Your task to perform on an android device: Search for asus rog on newegg, select the first entry, and add it to the cart. Image 0: 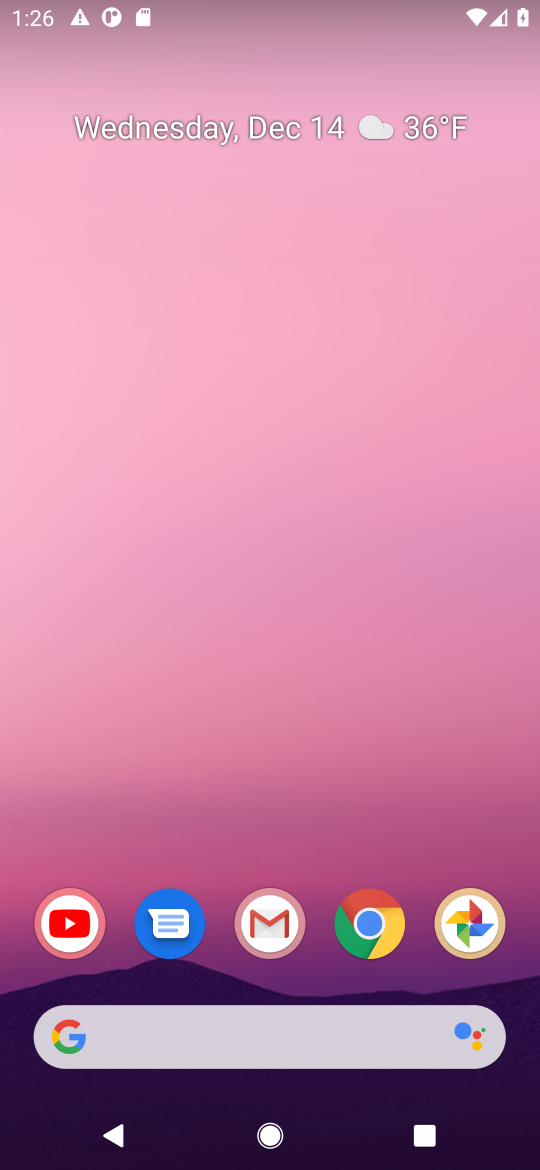
Step 0: click (369, 934)
Your task to perform on an android device: Search for asus rog on newegg, select the first entry, and add it to the cart. Image 1: 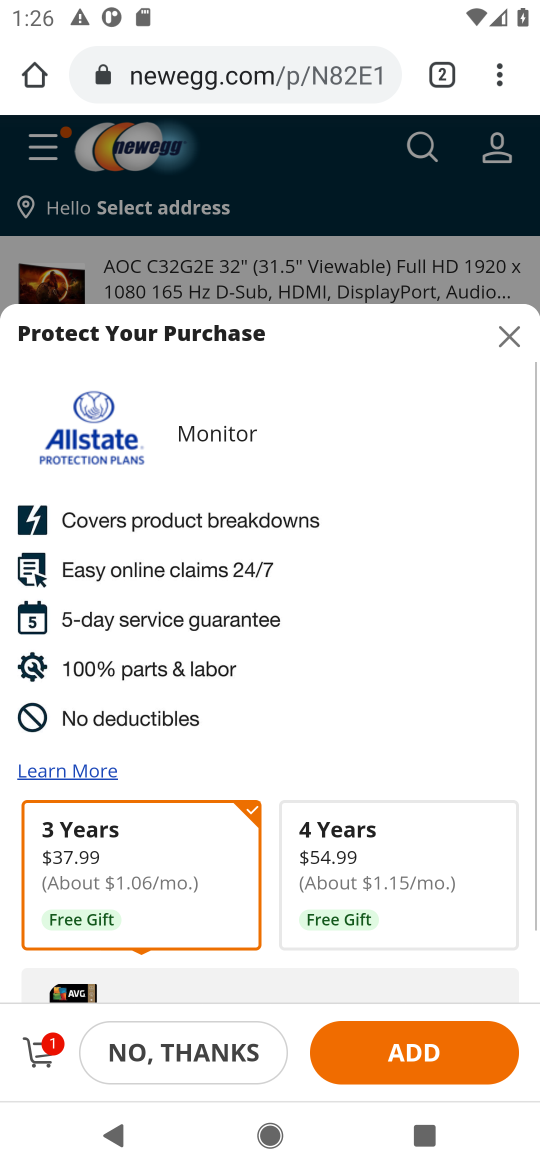
Step 1: click (513, 338)
Your task to perform on an android device: Search for asus rog on newegg, select the first entry, and add it to the cart. Image 2: 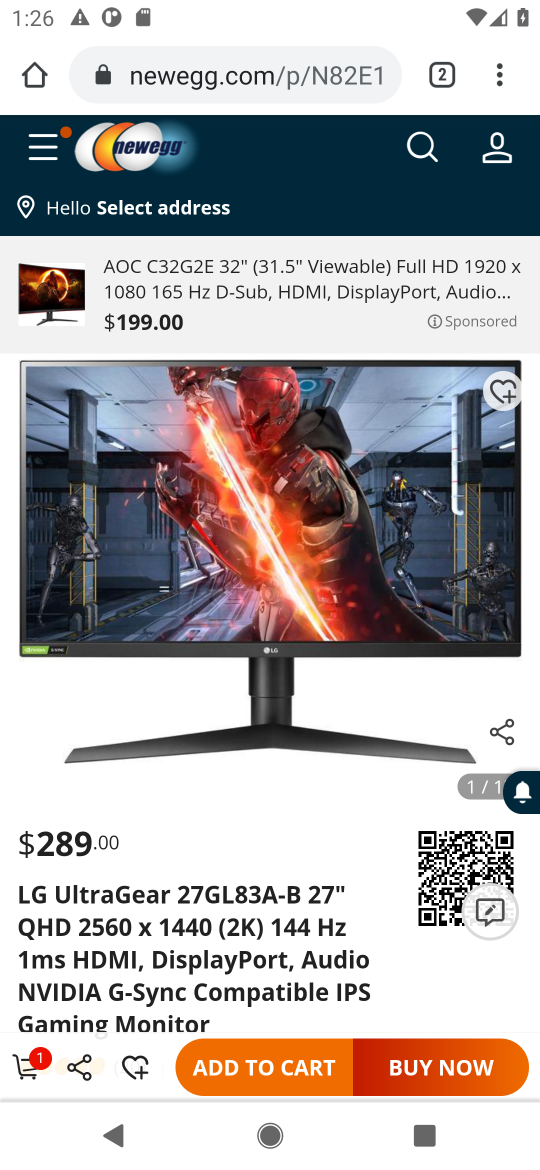
Step 2: click (426, 149)
Your task to perform on an android device: Search for asus rog on newegg, select the first entry, and add it to the cart. Image 3: 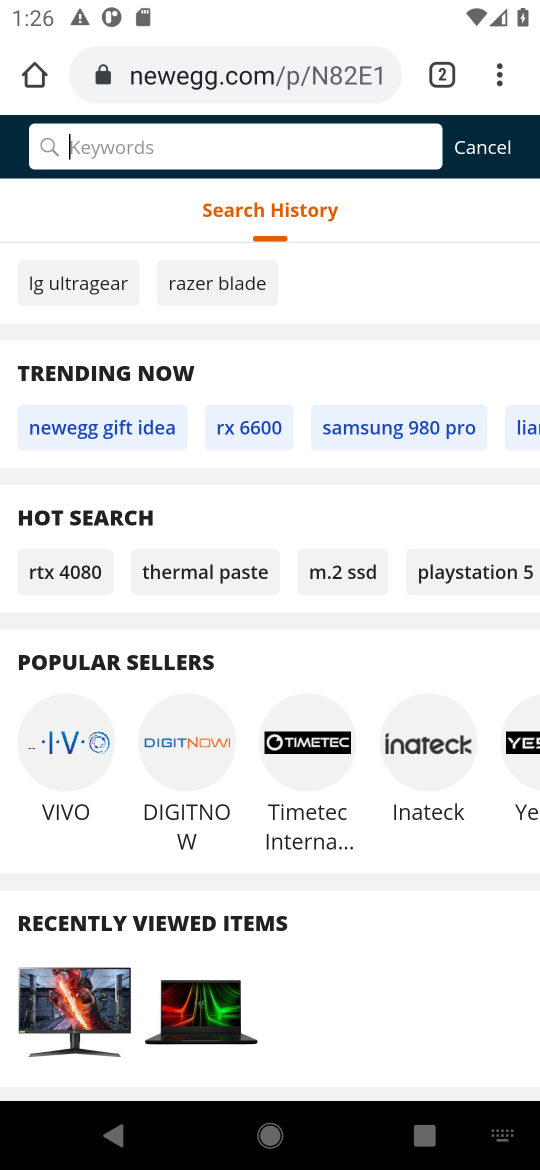
Step 3: type "asus rog"
Your task to perform on an android device: Search for asus rog on newegg, select the first entry, and add it to the cart. Image 4: 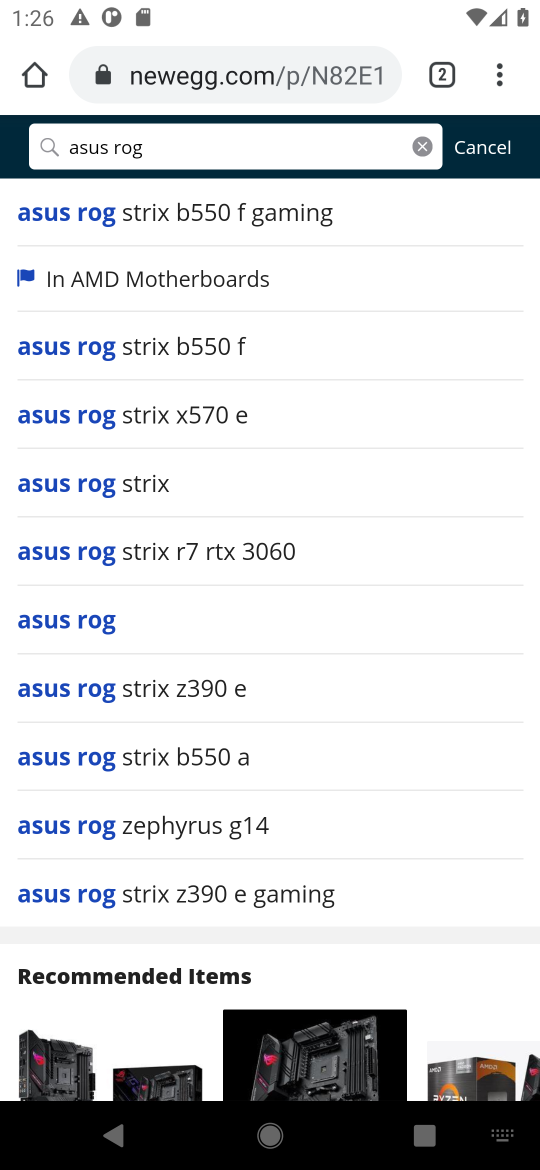
Step 4: click (100, 483)
Your task to perform on an android device: Search for asus rog on newegg, select the first entry, and add it to the cart. Image 5: 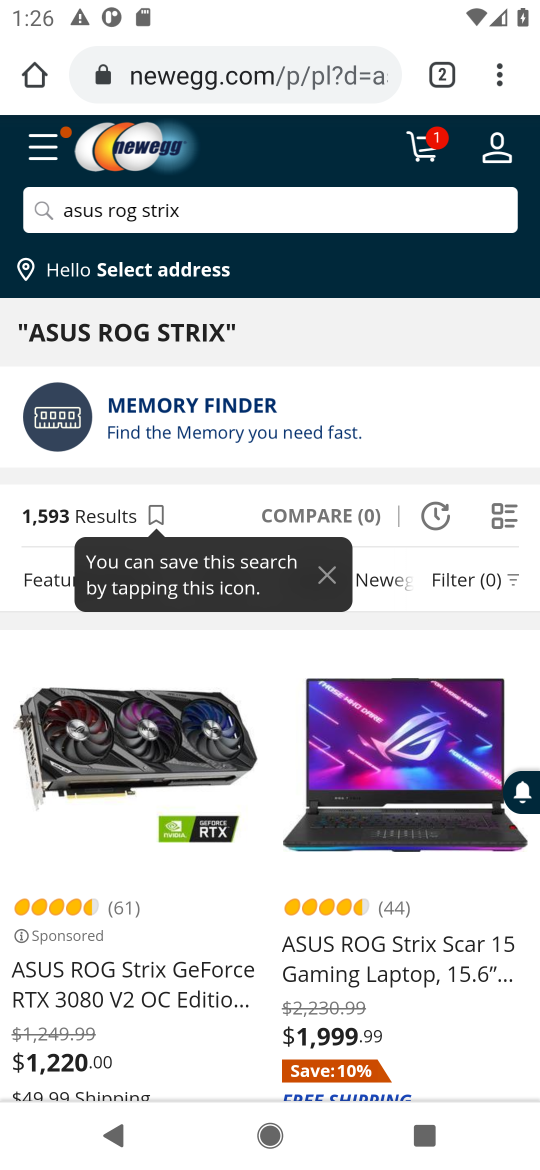
Step 5: click (376, 922)
Your task to perform on an android device: Search for asus rog on newegg, select the first entry, and add it to the cart. Image 6: 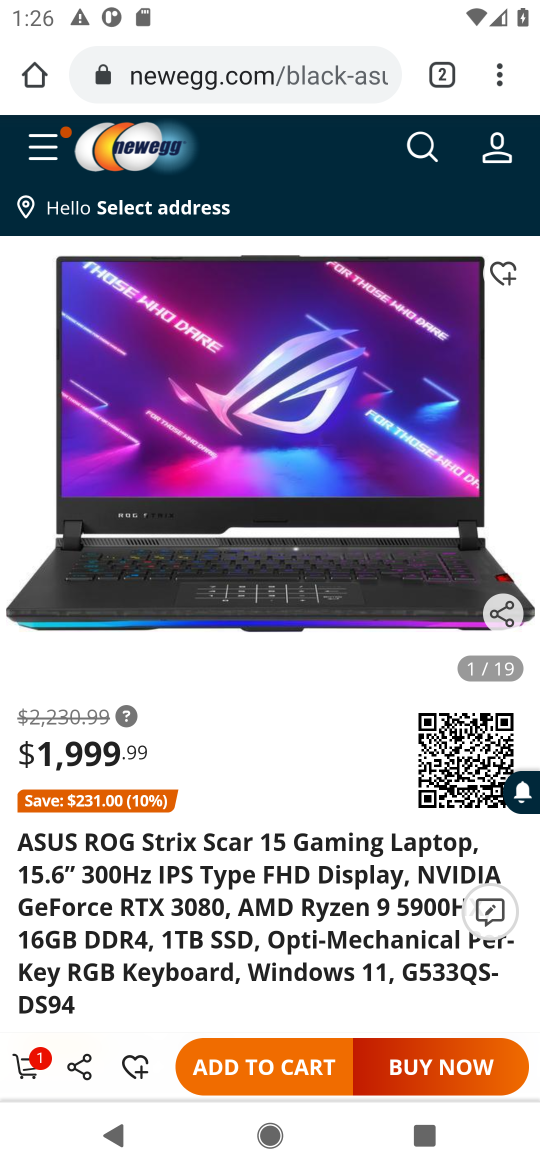
Step 6: click (299, 1074)
Your task to perform on an android device: Search for asus rog on newegg, select the first entry, and add it to the cart. Image 7: 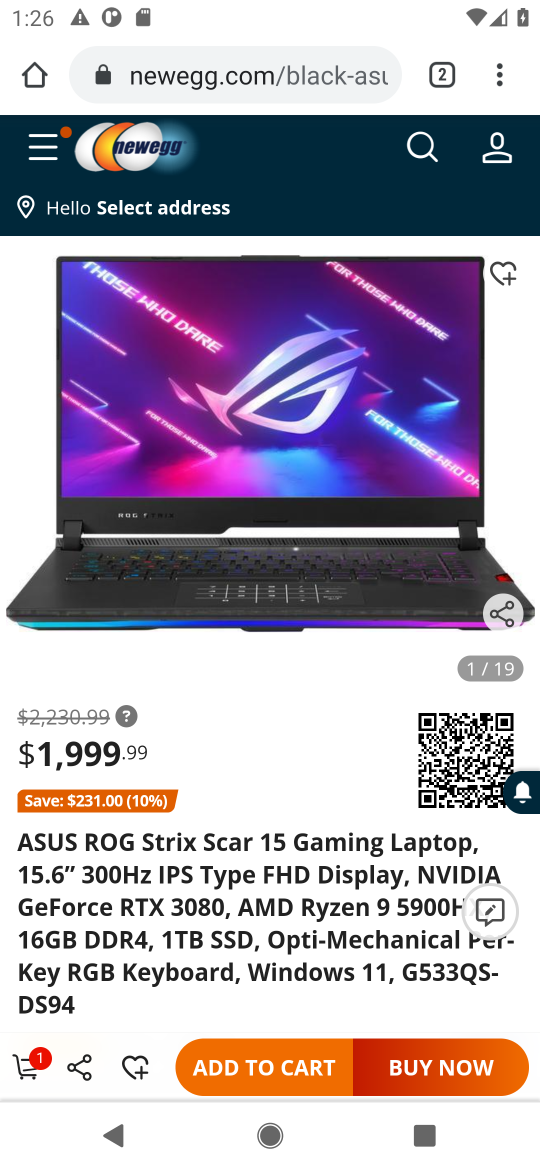
Step 7: task complete